Your task to perform on an android device: Go to wifi settings Image 0: 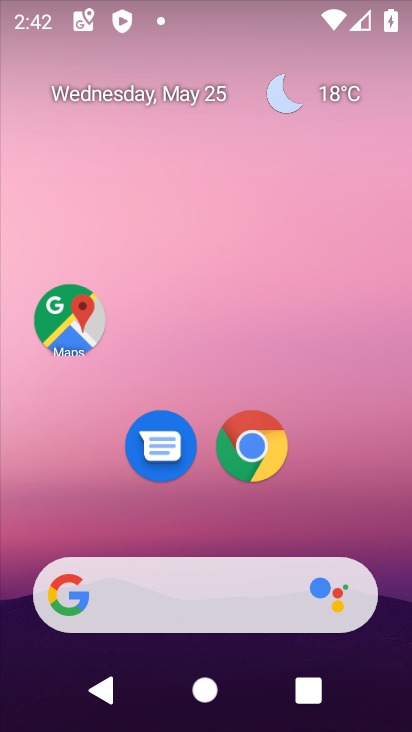
Step 0: drag from (218, 585) to (198, 44)
Your task to perform on an android device: Go to wifi settings Image 1: 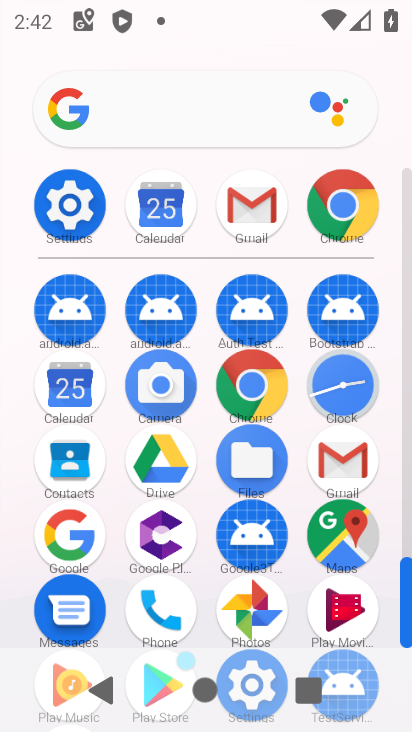
Step 1: click (83, 189)
Your task to perform on an android device: Go to wifi settings Image 2: 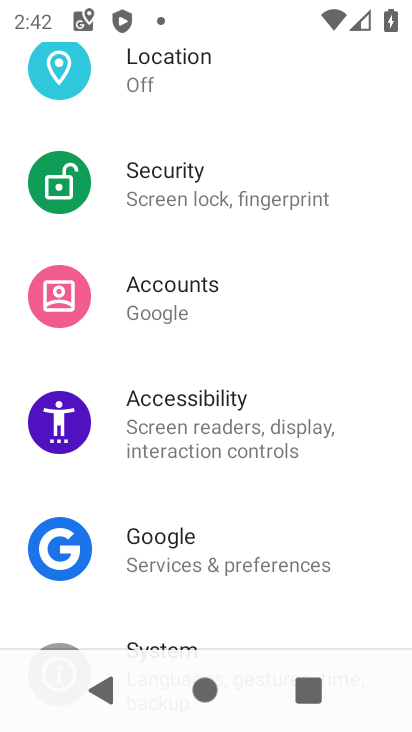
Step 2: drag from (185, 150) to (253, 612)
Your task to perform on an android device: Go to wifi settings Image 3: 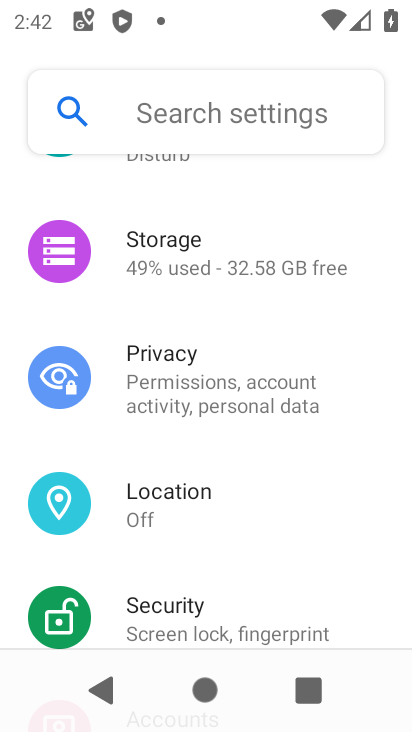
Step 3: drag from (176, 208) to (260, 666)
Your task to perform on an android device: Go to wifi settings Image 4: 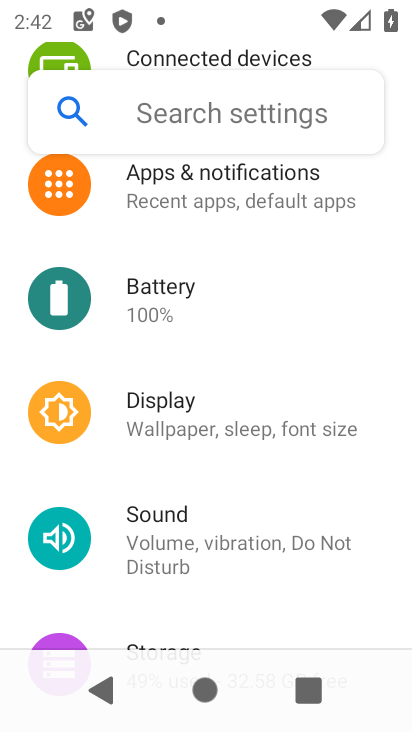
Step 4: drag from (207, 173) to (226, 603)
Your task to perform on an android device: Go to wifi settings Image 5: 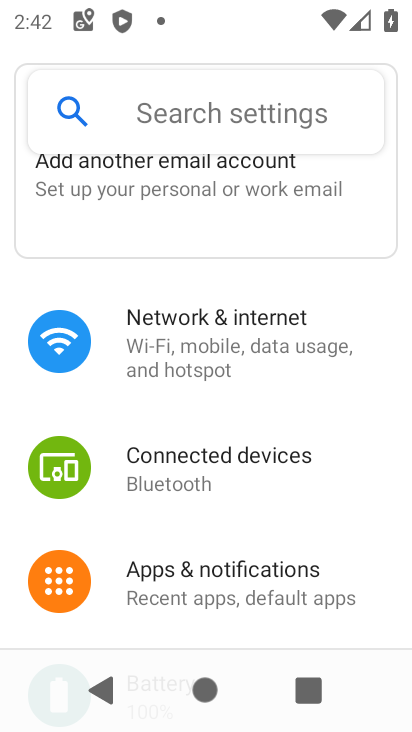
Step 5: click (191, 361)
Your task to perform on an android device: Go to wifi settings Image 6: 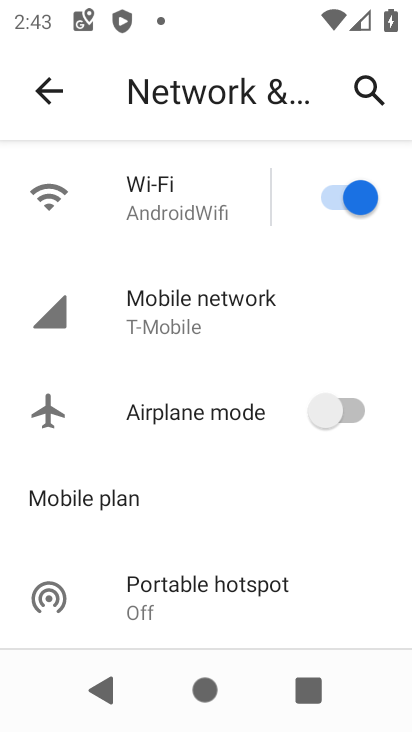
Step 6: click (189, 199)
Your task to perform on an android device: Go to wifi settings Image 7: 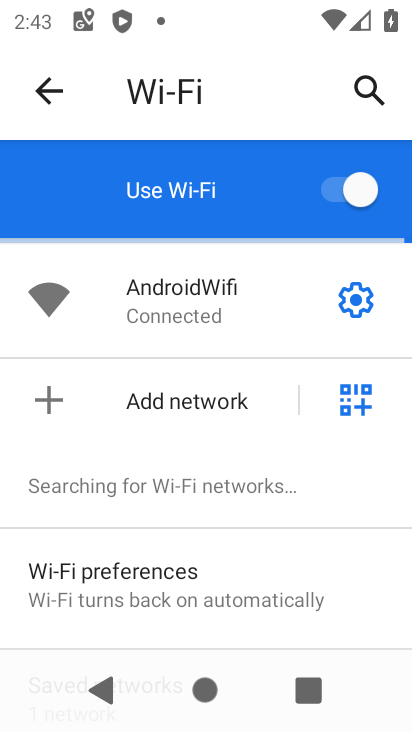
Step 7: task complete